Your task to perform on an android device: Open sound settings Image 0: 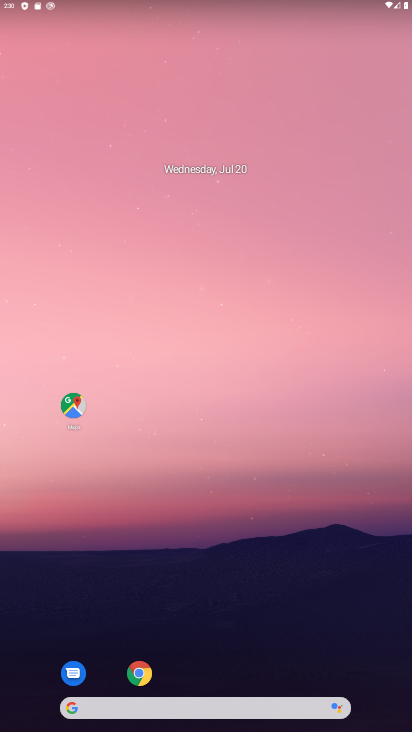
Step 0: drag from (236, 610) to (218, 1)
Your task to perform on an android device: Open sound settings Image 1: 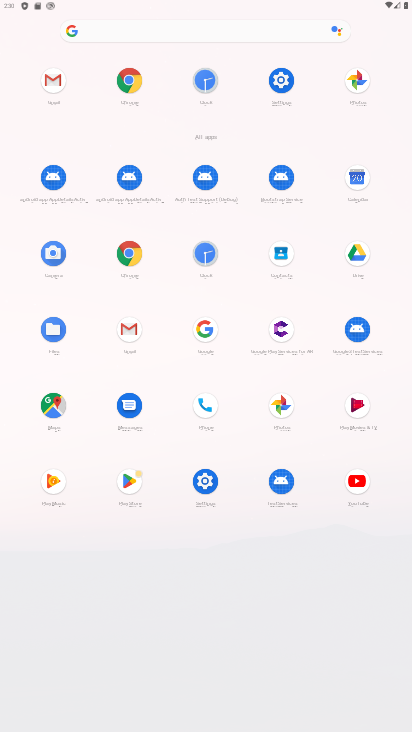
Step 1: click (203, 490)
Your task to perform on an android device: Open sound settings Image 2: 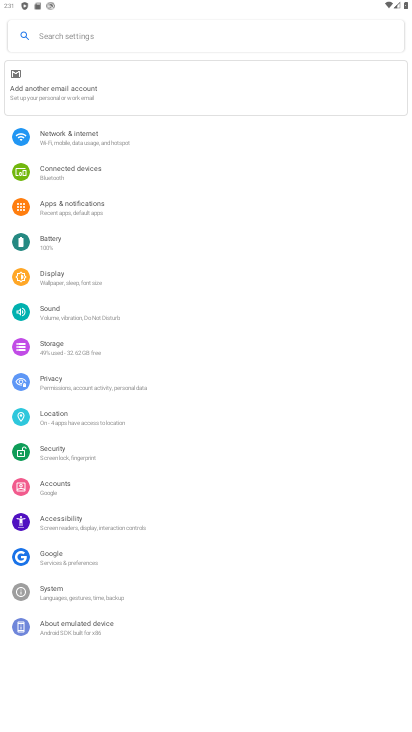
Step 2: click (80, 314)
Your task to perform on an android device: Open sound settings Image 3: 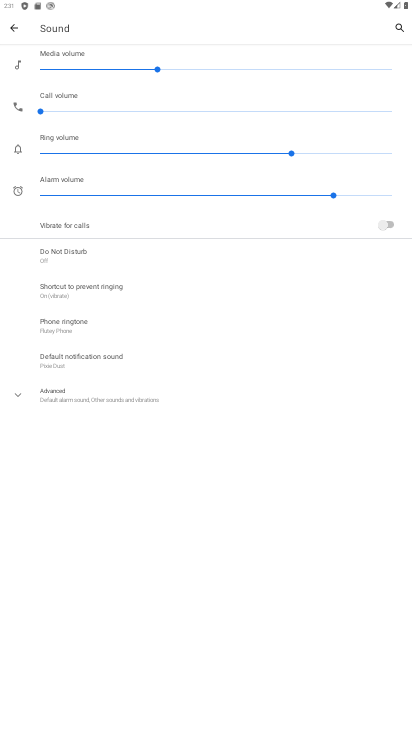
Step 3: task complete